Your task to perform on an android device: Is it going to rain tomorrow? Image 0: 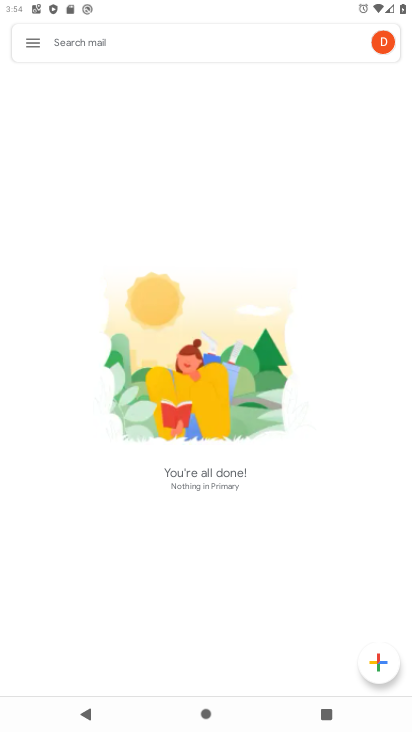
Step 0: press home button
Your task to perform on an android device: Is it going to rain tomorrow? Image 1: 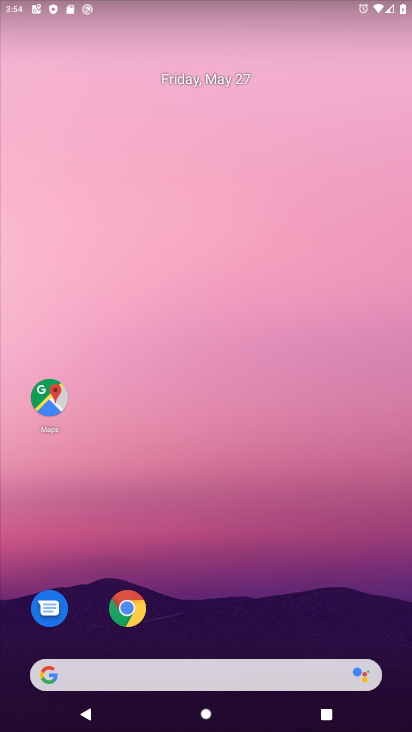
Step 1: drag from (211, 653) to (205, 364)
Your task to perform on an android device: Is it going to rain tomorrow? Image 2: 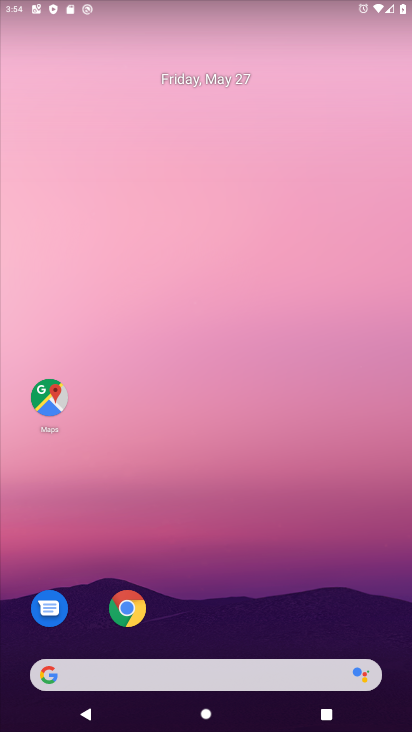
Step 2: drag from (202, 664) to (242, 184)
Your task to perform on an android device: Is it going to rain tomorrow? Image 3: 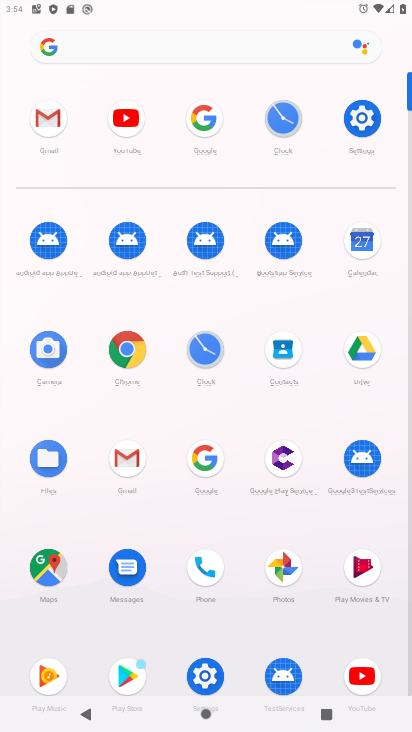
Step 3: click (204, 125)
Your task to perform on an android device: Is it going to rain tomorrow? Image 4: 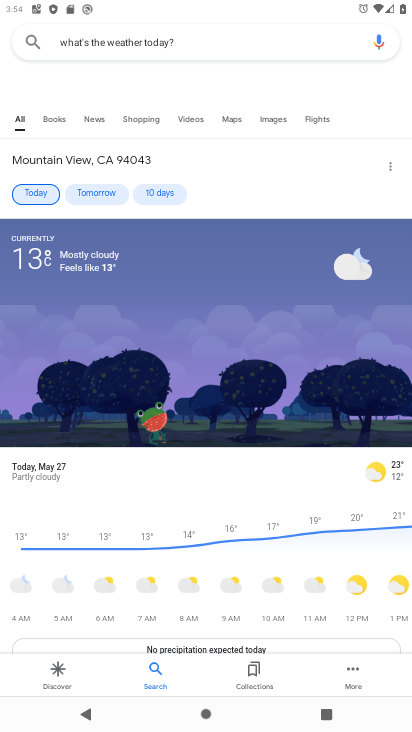
Step 4: click (204, 36)
Your task to perform on an android device: Is it going to rain tomorrow? Image 5: 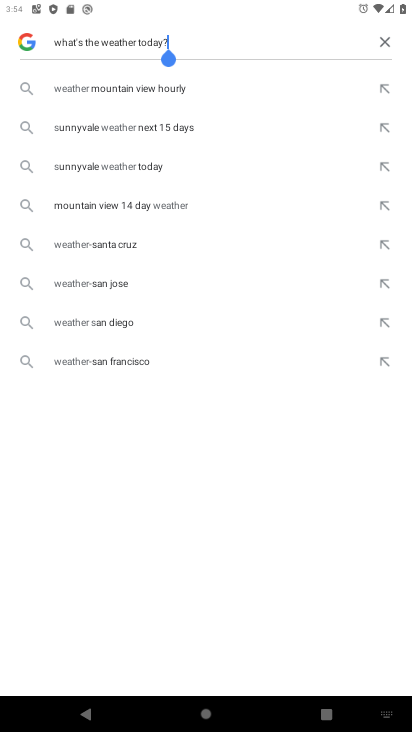
Step 5: click (190, 38)
Your task to perform on an android device: Is it going to rain tomorrow? Image 6: 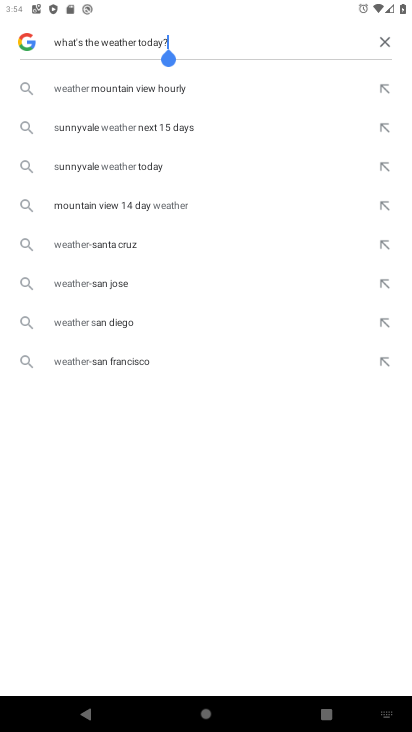
Step 6: click (390, 42)
Your task to perform on an android device: Is it going to rain tomorrow? Image 7: 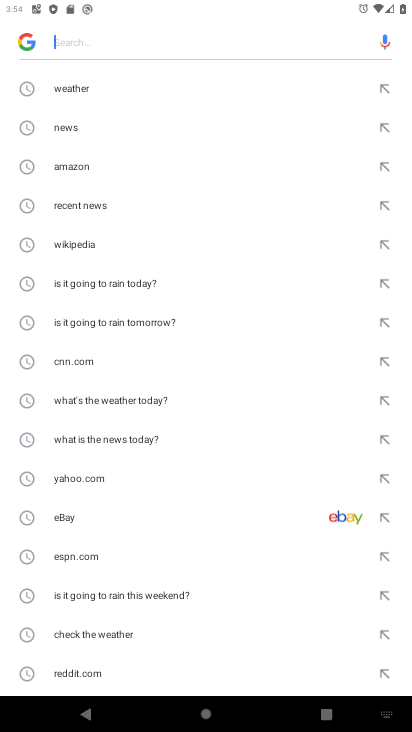
Step 7: click (121, 319)
Your task to perform on an android device: Is it going to rain tomorrow? Image 8: 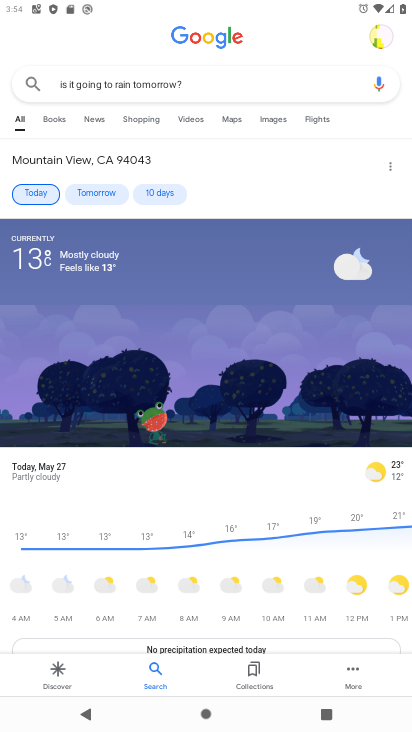
Step 8: task complete